Your task to perform on an android device: change keyboard looks Image 0: 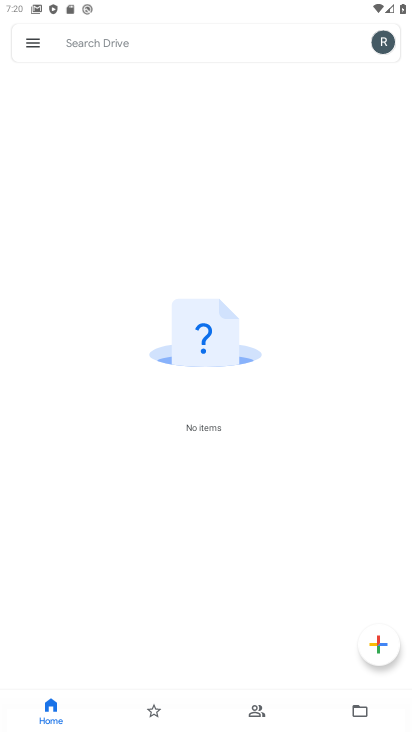
Step 0: press home button
Your task to perform on an android device: change keyboard looks Image 1: 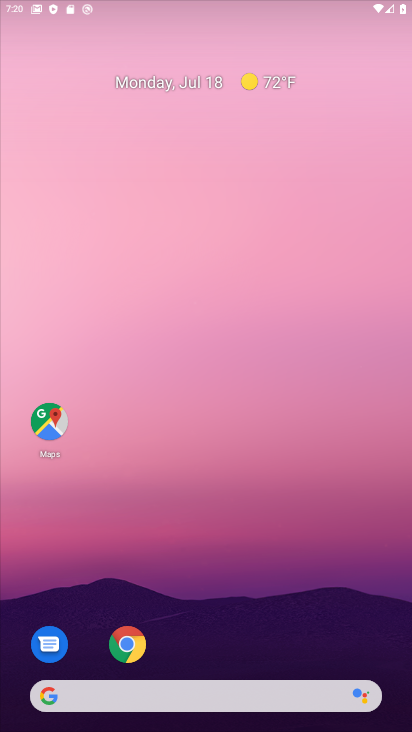
Step 1: drag from (373, 662) to (246, 13)
Your task to perform on an android device: change keyboard looks Image 2: 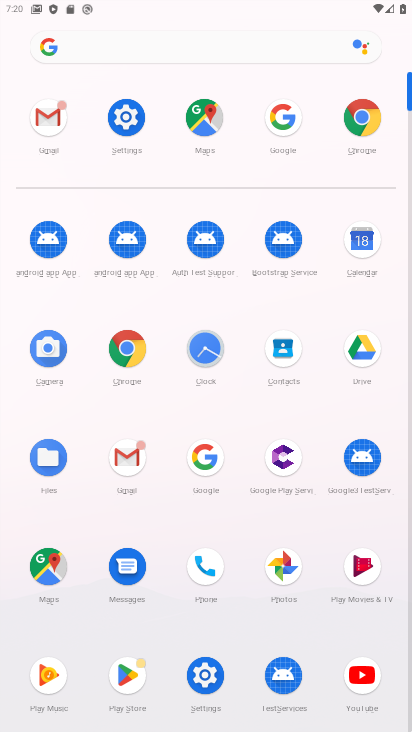
Step 2: click (199, 673)
Your task to perform on an android device: change keyboard looks Image 3: 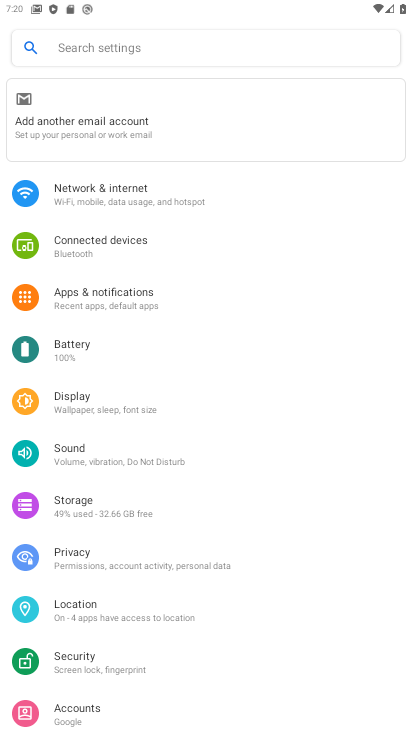
Step 3: drag from (199, 673) to (200, 5)
Your task to perform on an android device: change keyboard looks Image 4: 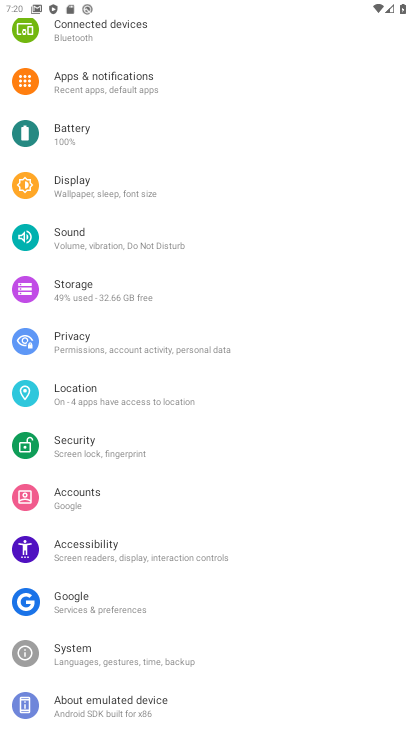
Step 4: click (122, 663)
Your task to perform on an android device: change keyboard looks Image 5: 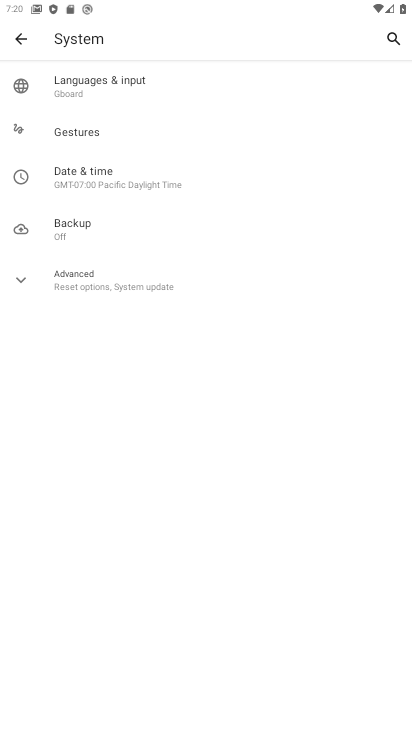
Step 5: click (84, 98)
Your task to perform on an android device: change keyboard looks Image 6: 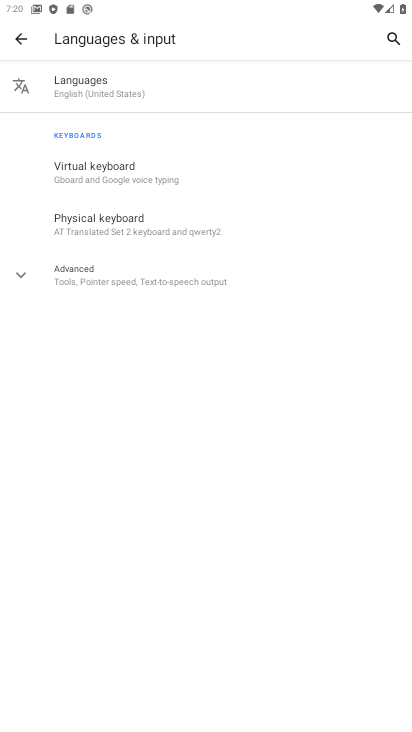
Step 6: click (112, 155)
Your task to perform on an android device: change keyboard looks Image 7: 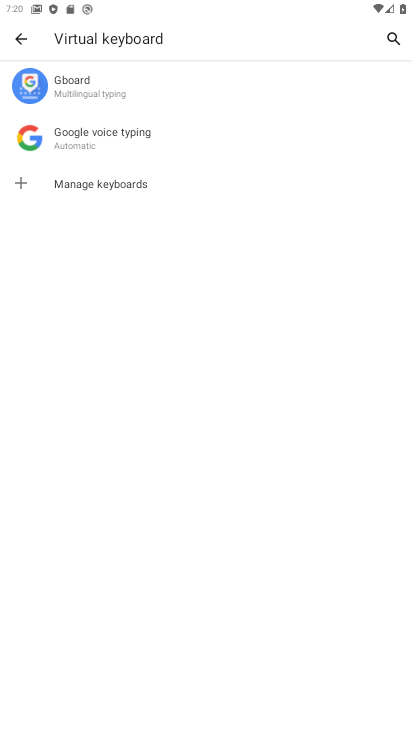
Step 7: click (85, 83)
Your task to perform on an android device: change keyboard looks Image 8: 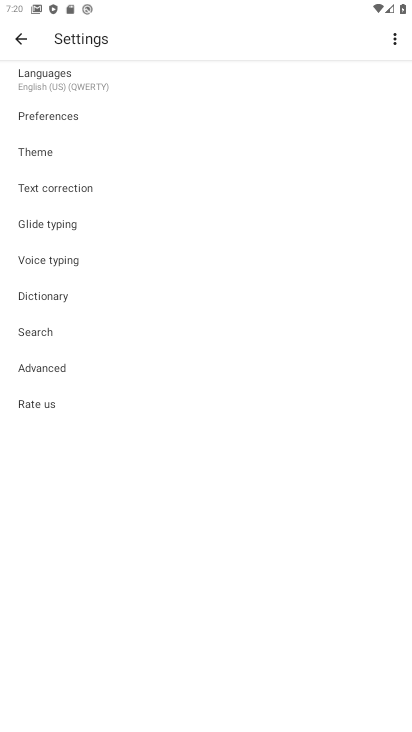
Step 8: click (40, 149)
Your task to perform on an android device: change keyboard looks Image 9: 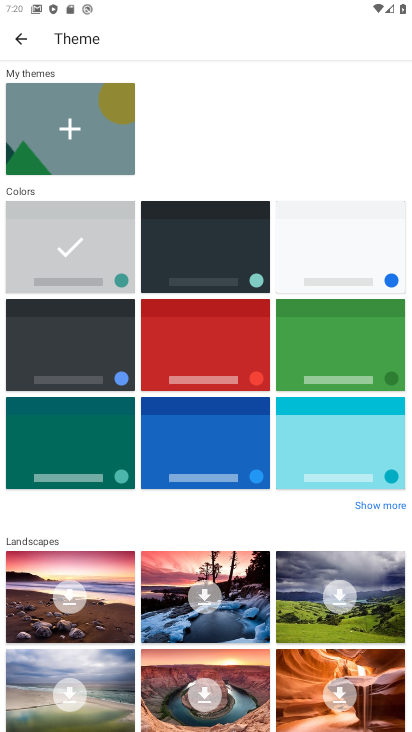
Step 9: click (212, 242)
Your task to perform on an android device: change keyboard looks Image 10: 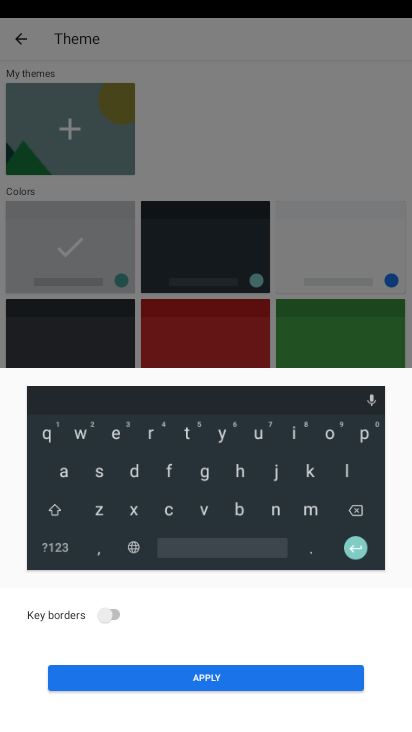
Step 10: click (172, 673)
Your task to perform on an android device: change keyboard looks Image 11: 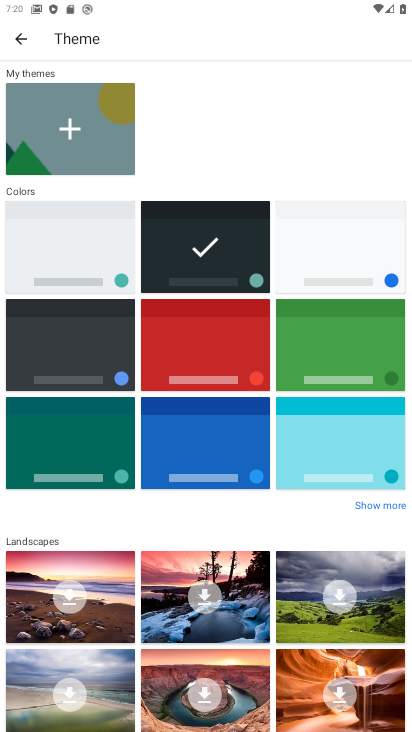
Step 11: task complete